Your task to perform on an android device: star an email in the gmail app Image 0: 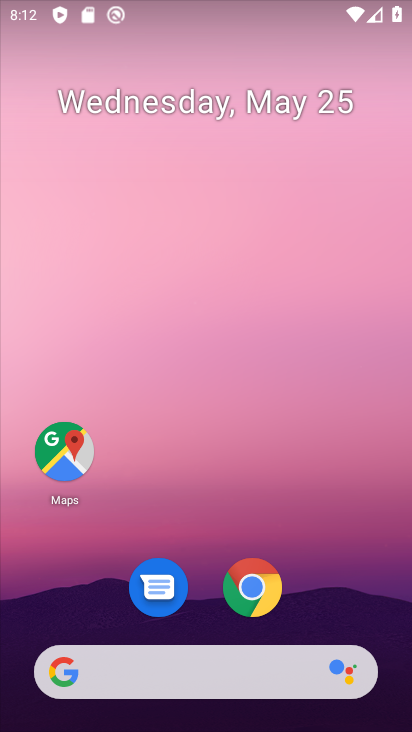
Step 0: drag from (254, 480) to (283, 6)
Your task to perform on an android device: star an email in the gmail app Image 1: 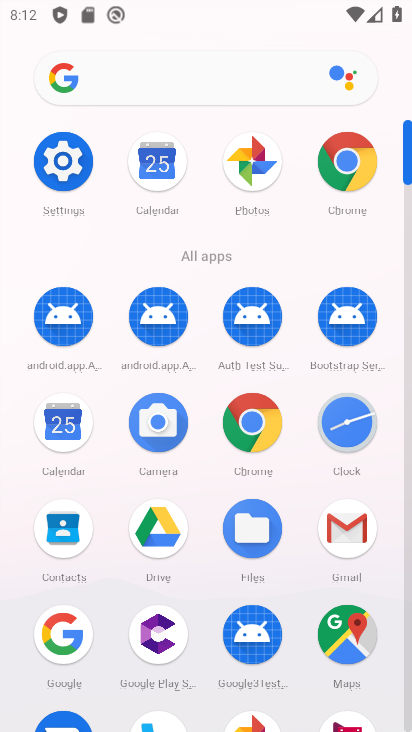
Step 1: click (346, 535)
Your task to perform on an android device: star an email in the gmail app Image 2: 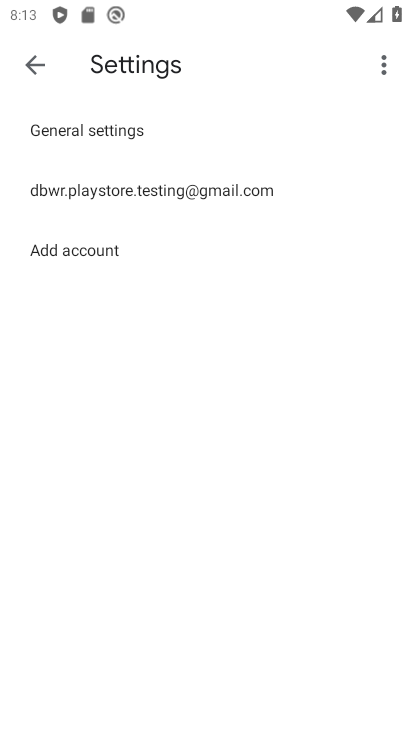
Step 2: click (37, 63)
Your task to perform on an android device: star an email in the gmail app Image 3: 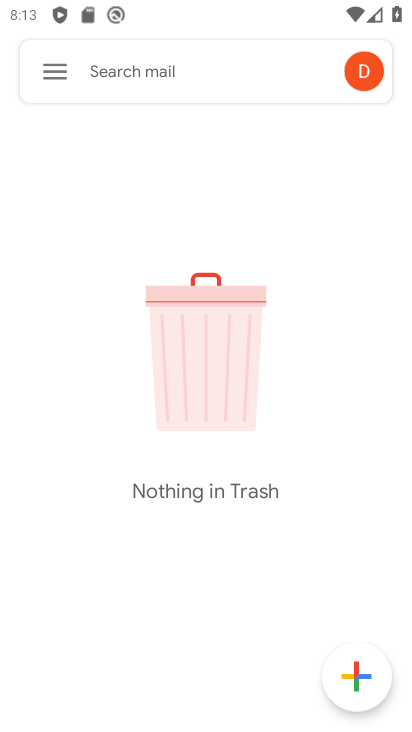
Step 3: click (57, 71)
Your task to perform on an android device: star an email in the gmail app Image 4: 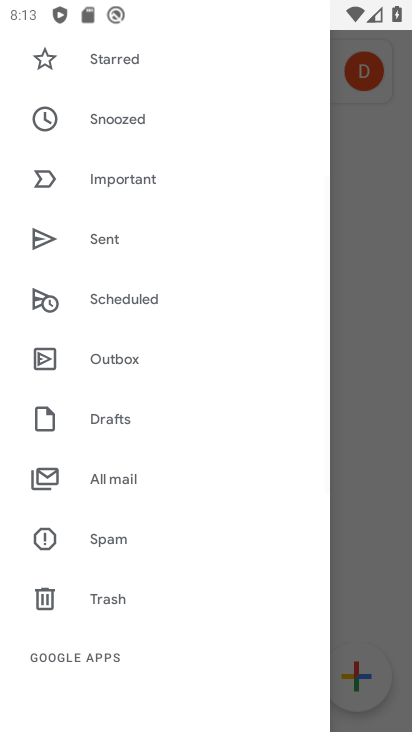
Step 4: drag from (151, 63) to (151, 584)
Your task to perform on an android device: star an email in the gmail app Image 5: 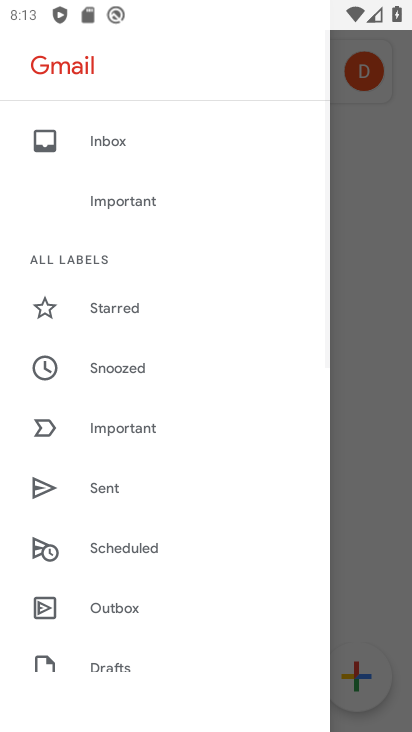
Step 5: click (101, 136)
Your task to perform on an android device: star an email in the gmail app Image 6: 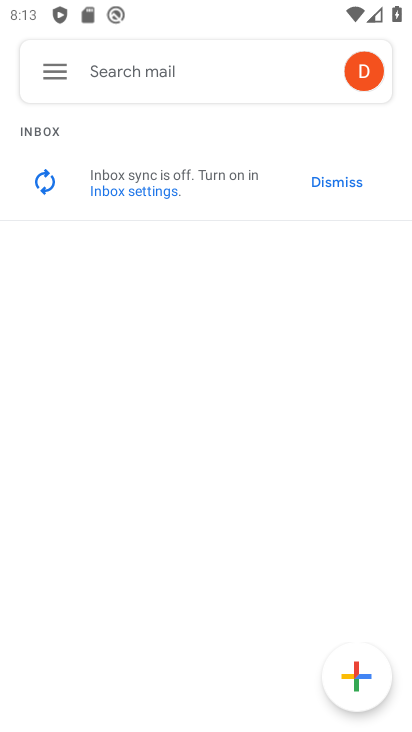
Step 6: task complete